Your task to perform on an android device: delete browsing data in the chrome app Image 0: 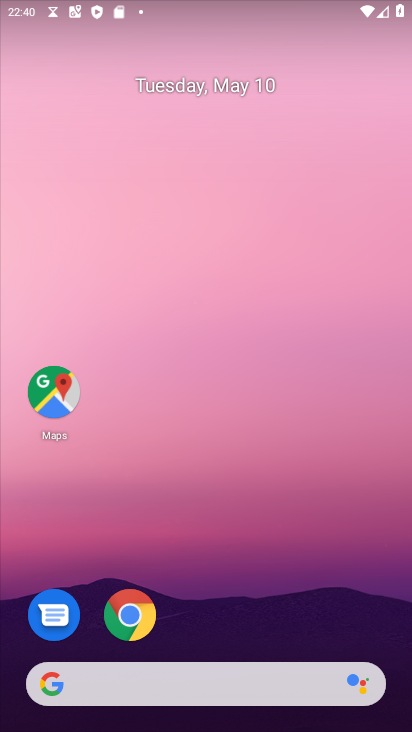
Step 0: click (130, 613)
Your task to perform on an android device: delete browsing data in the chrome app Image 1: 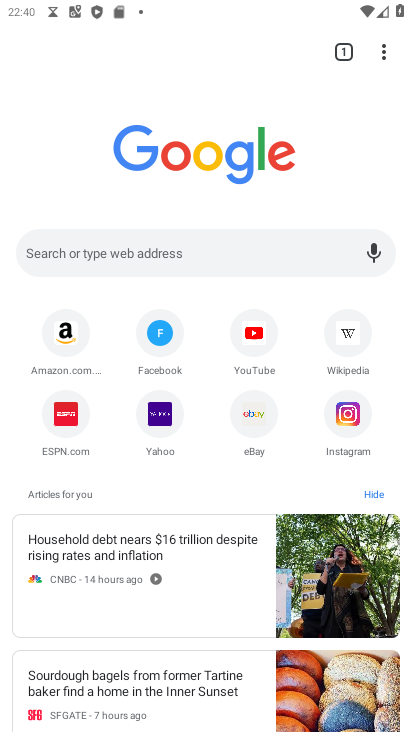
Step 1: click (385, 49)
Your task to perform on an android device: delete browsing data in the chrome app Image 2: 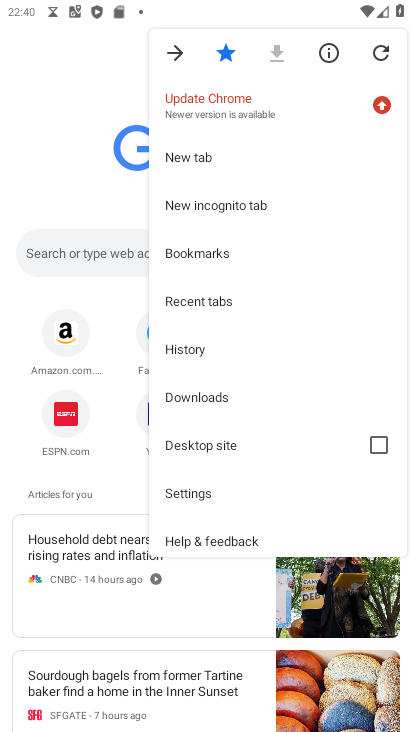
Step 2: click (191, 492)
Your task to perform on an android device: delete browsing data in the chrome app Image 3: 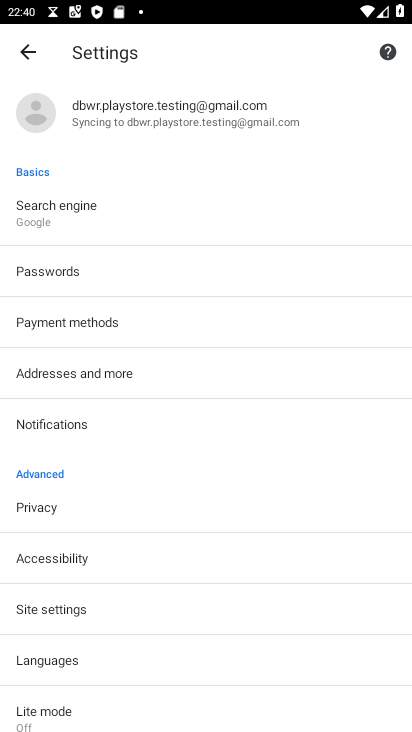
Step 3: click (32, 509)
Your task to perform on an android device: delete browsing data in the chrome app Image 4: 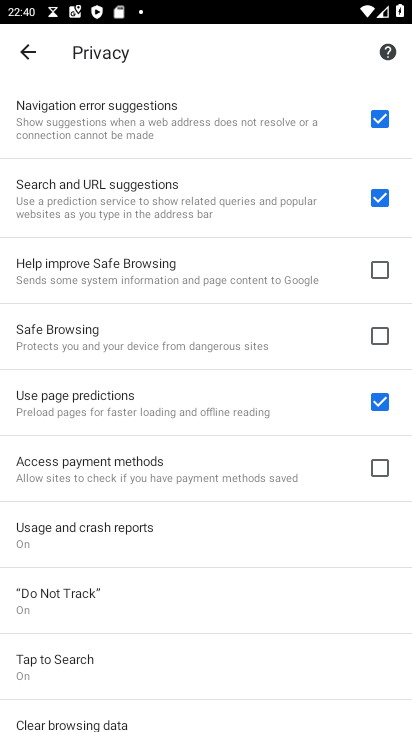
Step 4: drag from (101, 625) to (151, 533)
Your task to perform on an android device: delete browsing data in the chrome app Image 5: 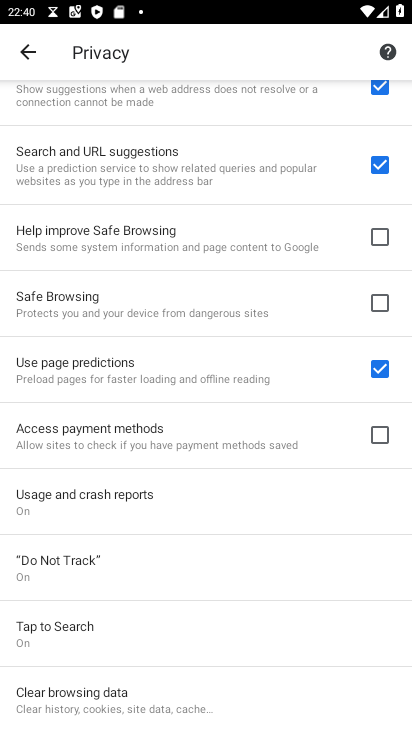
Step 5: click (100, 693)
Your task to perform on an android device: delete browsing data in the chrome app Image 6: 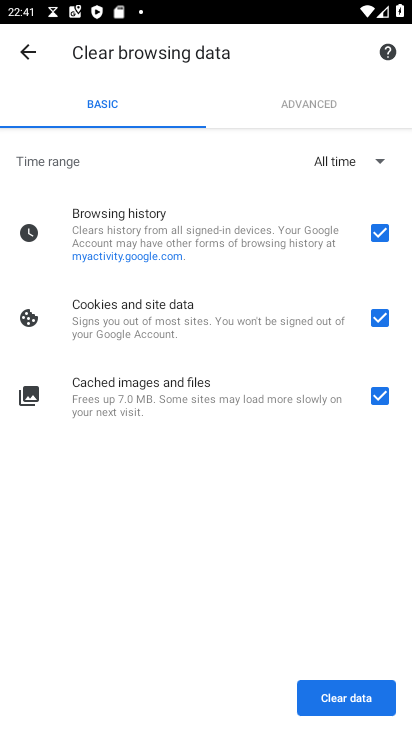
Step 6: click (346, 694)
Your task to perform on an android device: delete browsing data in the chrome app Image 7: 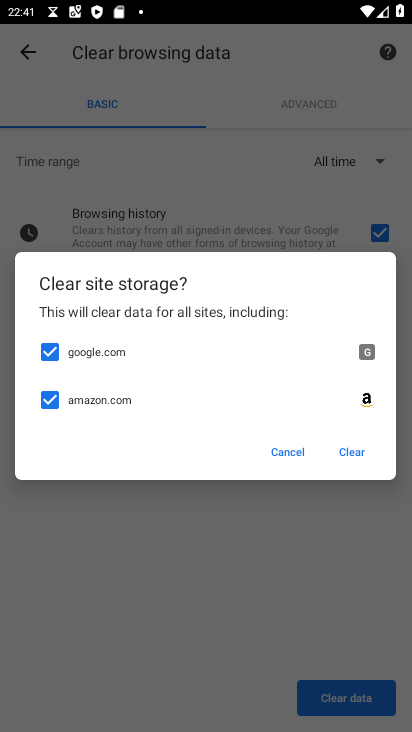
Step 7: click (354, 457)
Your task to perform on an android device: delete browsing data in the chrome app Image 8: 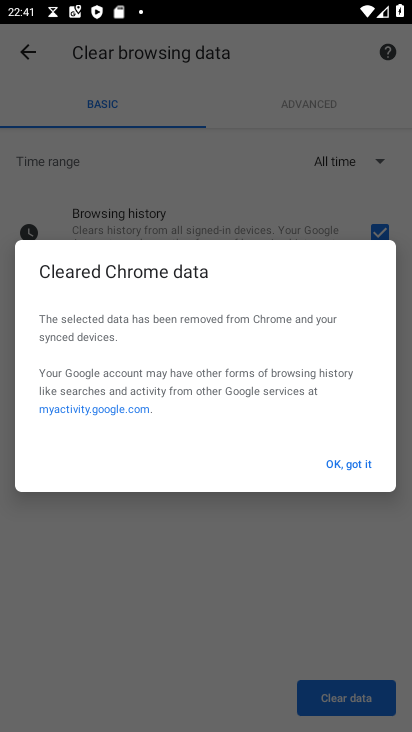
Step 8: click (353, 454)
Your task to perform on an android device: delete browsing data in the chrome app Image 9: 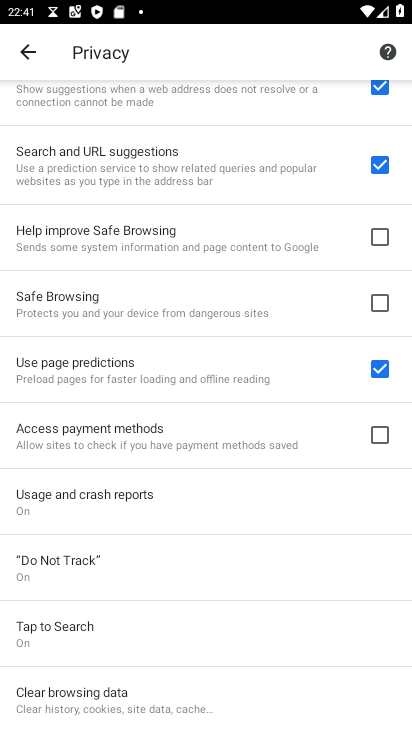
Step 9: task complete